Your task to perform on an android device: change timer sound Image 0: 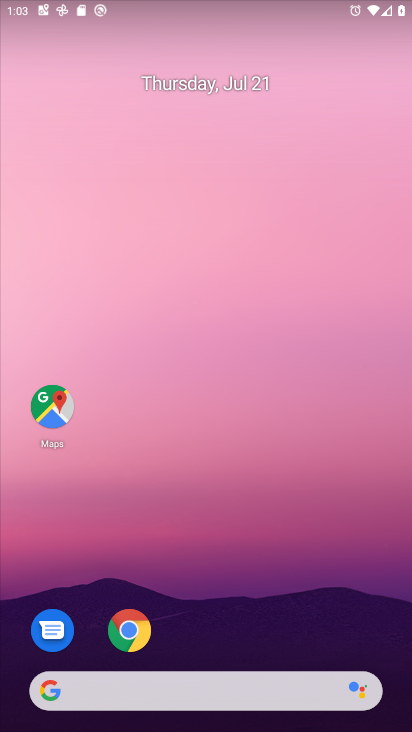
Step 0: drag from (254, 417) to (303, 97)
Your task to perform on an android device: change timer sound Image 1: 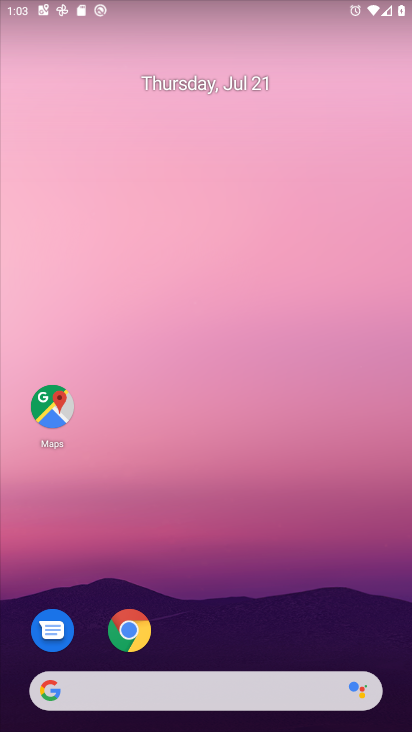
Step 1: drag from (183, 652) to (282, 144)
Your task to perform on an android device: change timer sound Image 2: 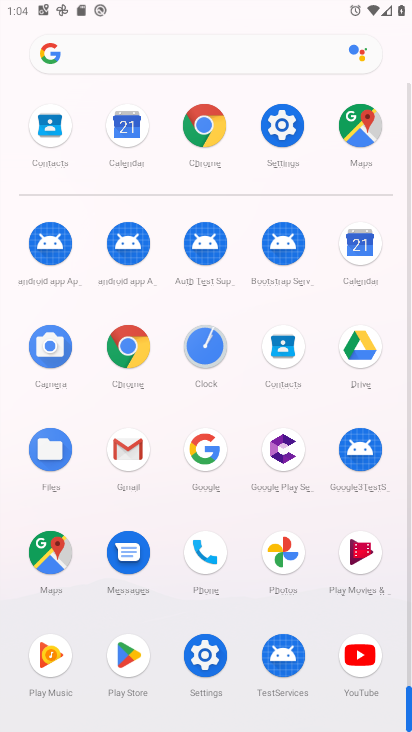
Step 2: click (188, 326)
Your task to perform on an android device: change timer sound Image 3: 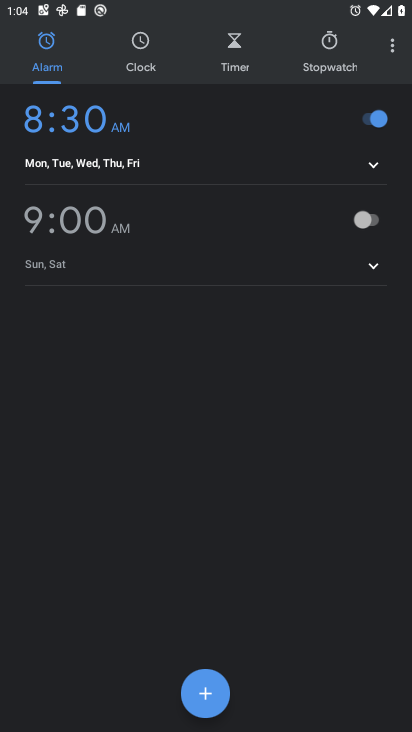
Step 3: click (239, 53)
Your task to perform on an android device: change timer sound Image 4: 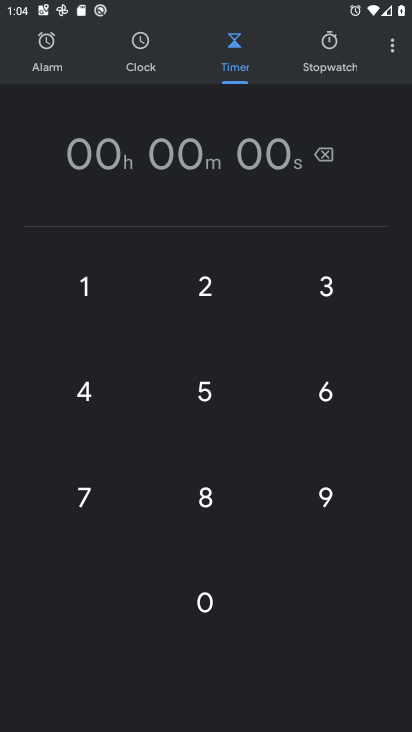
Step 4: click (215, 296)
Your task to perform on an android device: change timer sound Image 5: 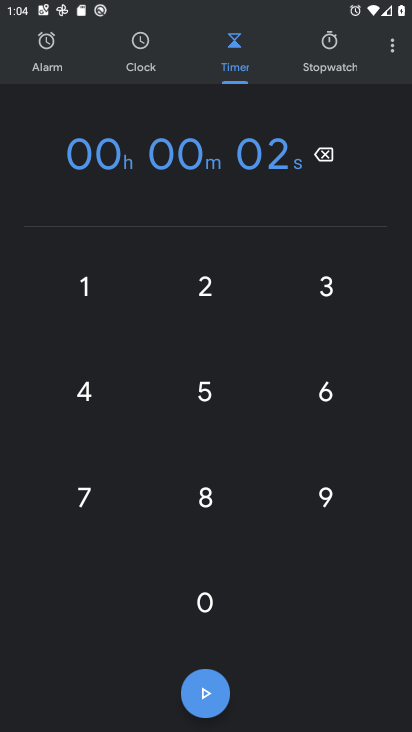
Step 5: click (339, 295)
Your task to perform on an android device: change timer sound Image 6: 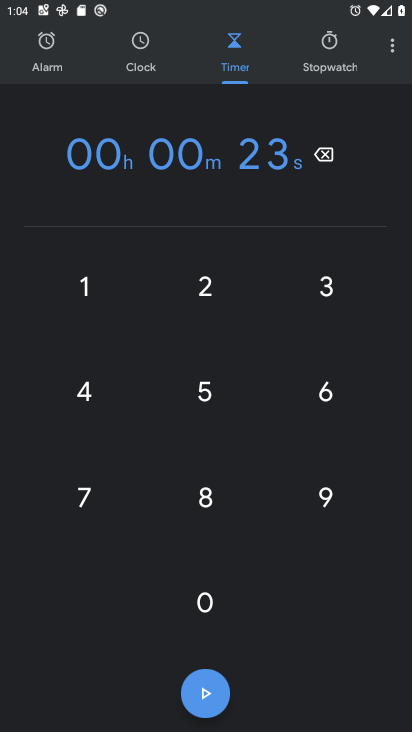
Step 6: click (324, 157)
Your task to perform on an android device: change timer sound Image 7: 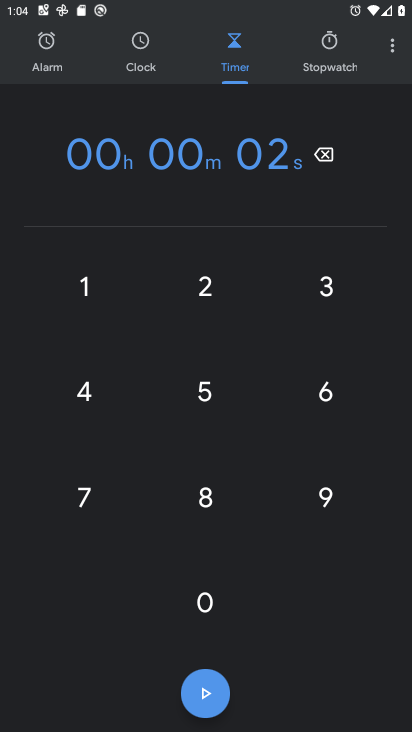
Step 7: click (324, 157)
Your task to perform on an android device: change timer sound Image 8: 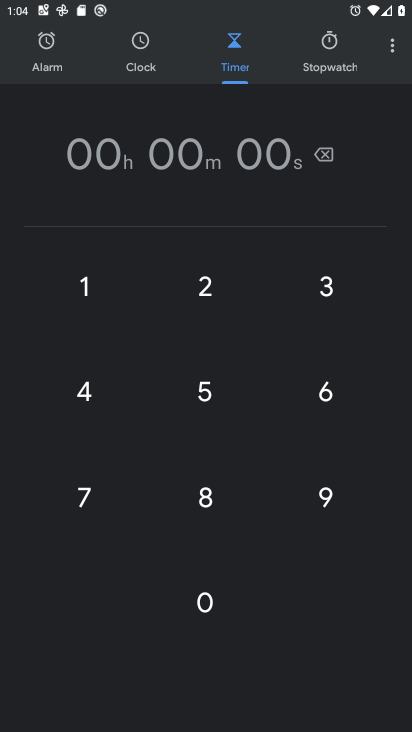
Step 8: click (393, 44)
Your task to perform on an android device: change timer sound Image 9: 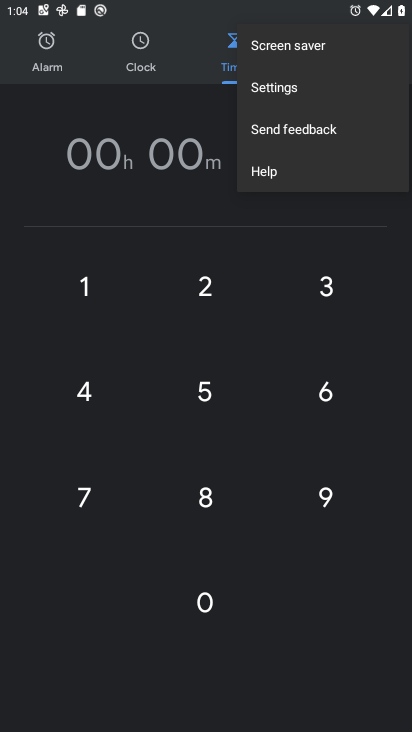
Step 9: click (306, 90)
Your task to perform on an android device: change timer sound Image 10: 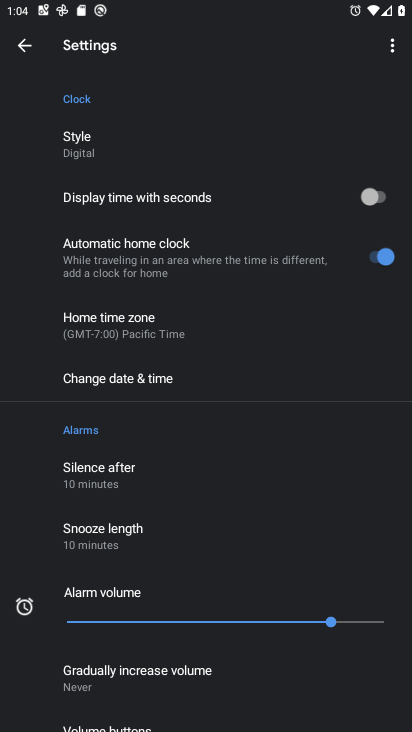
Step 10: drag from (193, 499) to (270, 141)
Your task to perform on an android device: change timer sound Image 11: 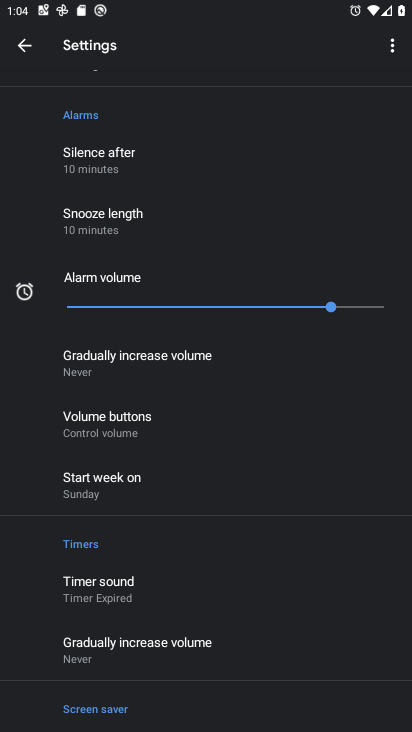
Step 11: click (137, 579)
Your task to perform on an android device: change timer sound Image 12: 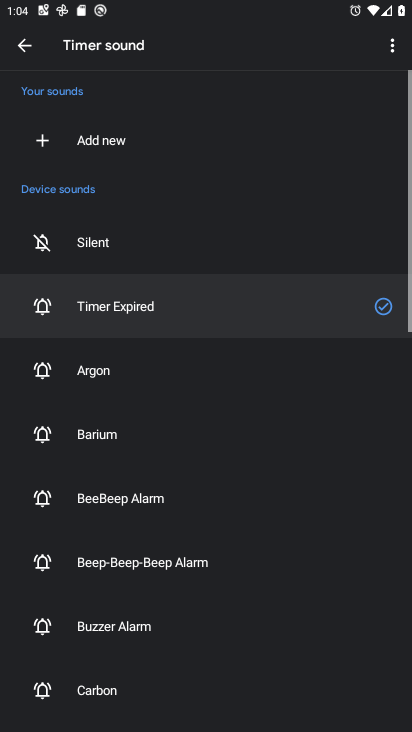
Step 12: click (203, 391)
Your task to perform on an android device: change timer sound Image 13: 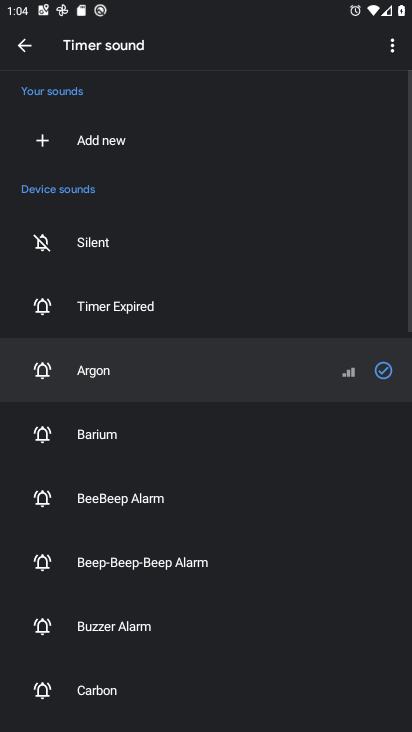
Step 13: task complete